Your task to perform on an android device: change text size in settings app Image 0: 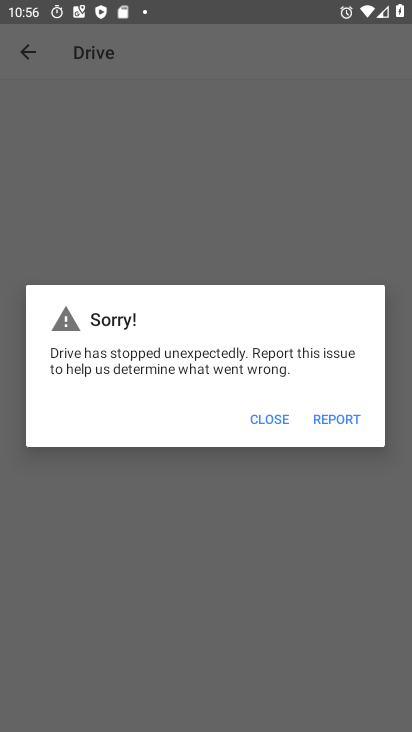
Step 0: press home button
Your task to perform on an android device: change text size in settings app Image 1: 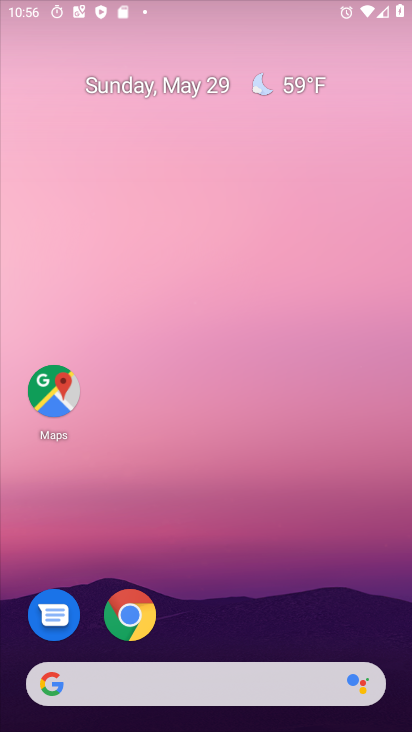
Step 1: drag from (246, 594) to (337, 63)
Your task to perform on an android device: change text size in settings app Image 2: 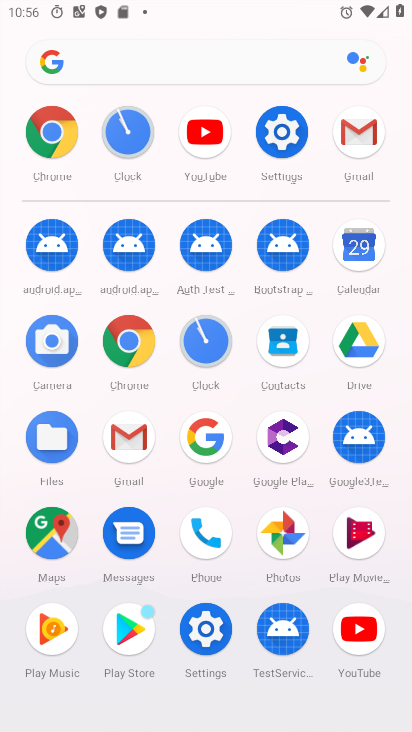
Step 2: click (213, 621)
Your task to perform on an android device: change text size in settings app Image 3: 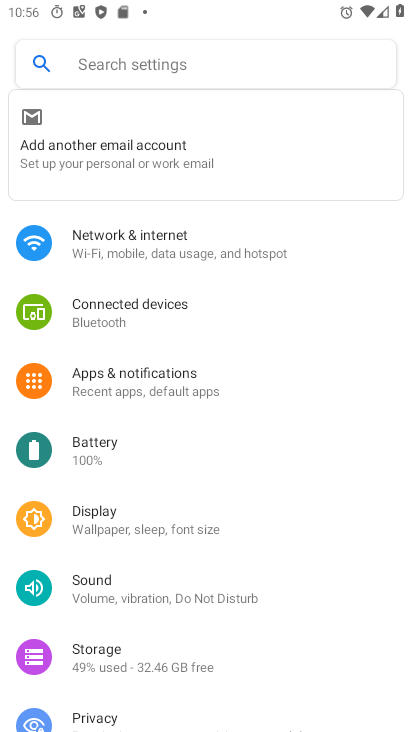
Step 3: drag from (188, 675) to (163, 387)
Your task to perform on an android device: change text size in settings app Image 4: 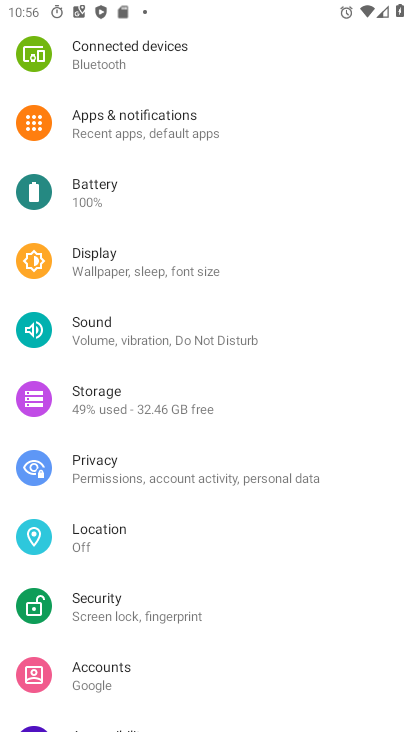
Step 4: click (150, 265)
Your task to perform on an android device: change text size in settings app Image 5: 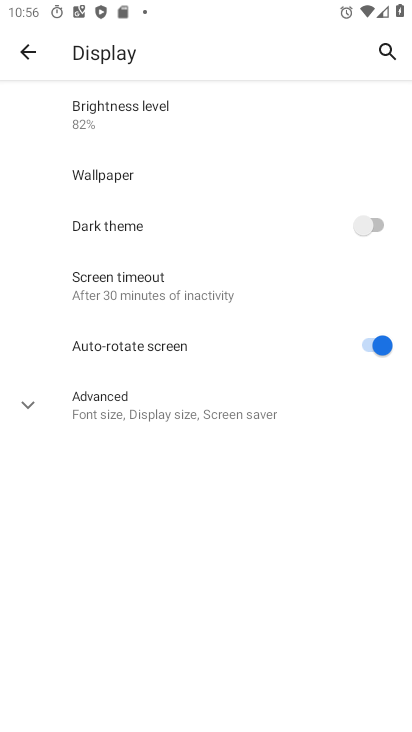
Step 5: click (113, 409)
Your task to perform on an android device: change text size in settings app Image 6: 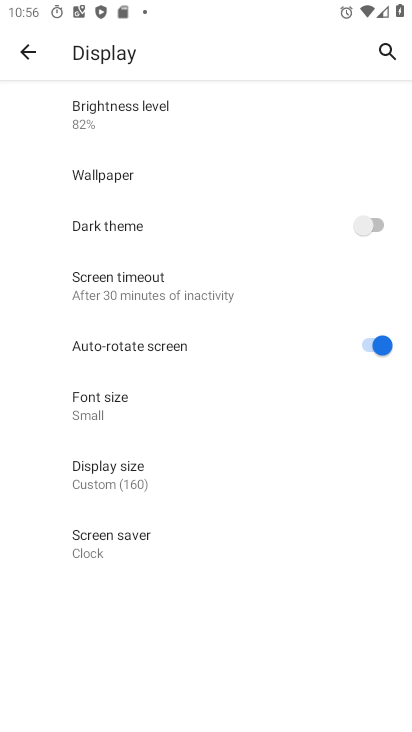
Step 6: click (110, 391)
Your task to perform on an android device: change text size in settings app Image 7: 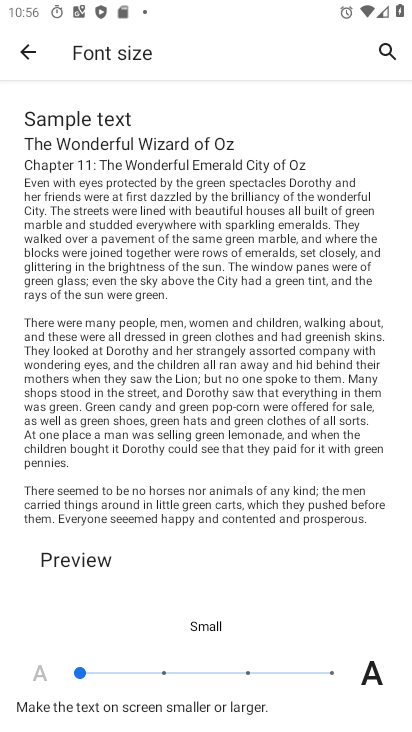
Step 7: task complete